Your task to perform on an android device: Is it going to rain this weekend? Image 0: 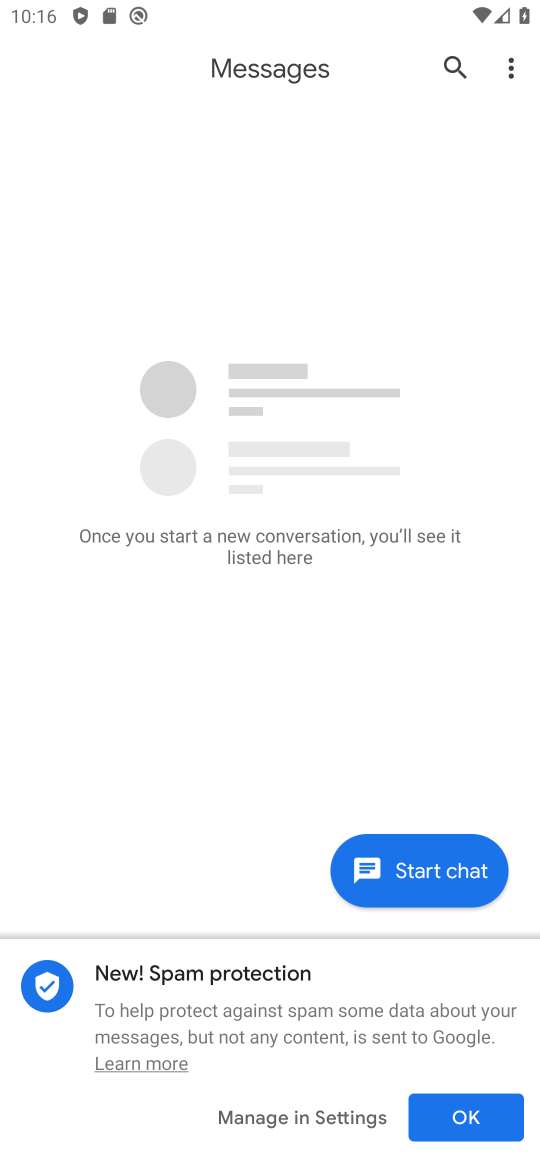
Step 0: press back button
Your task to perform on an android device: Is it going to rain this weekend? Image 1: 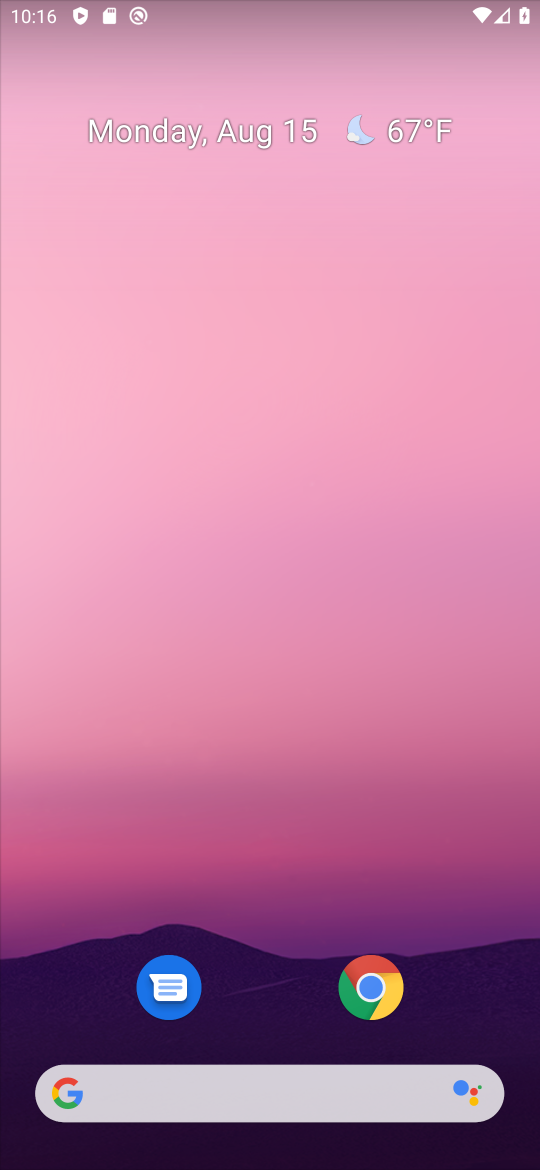
Step 1: drag from (292, 1041) to (225, 177)
Your task to perform on an android device: Is it going to rain this weekend? Image 2: 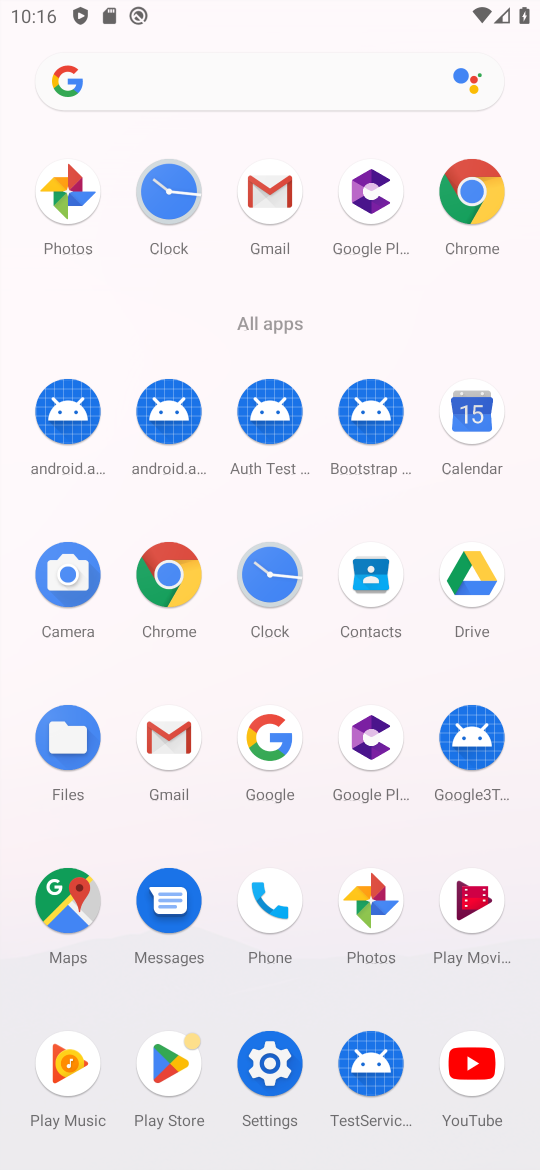
Step 2: click (273, 755)
Your task to perform on an android device: Is it going to rain this weekend? Image 3: 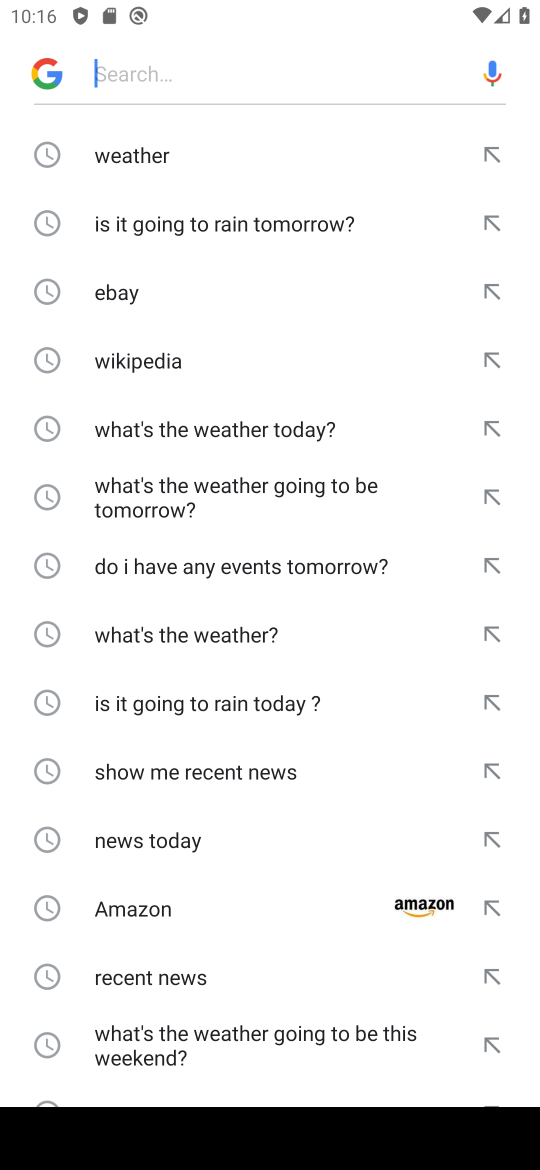
Step 3: click (106, 173)
Your task to perform on an android device: Is it going to rain this weekend? Image 4: 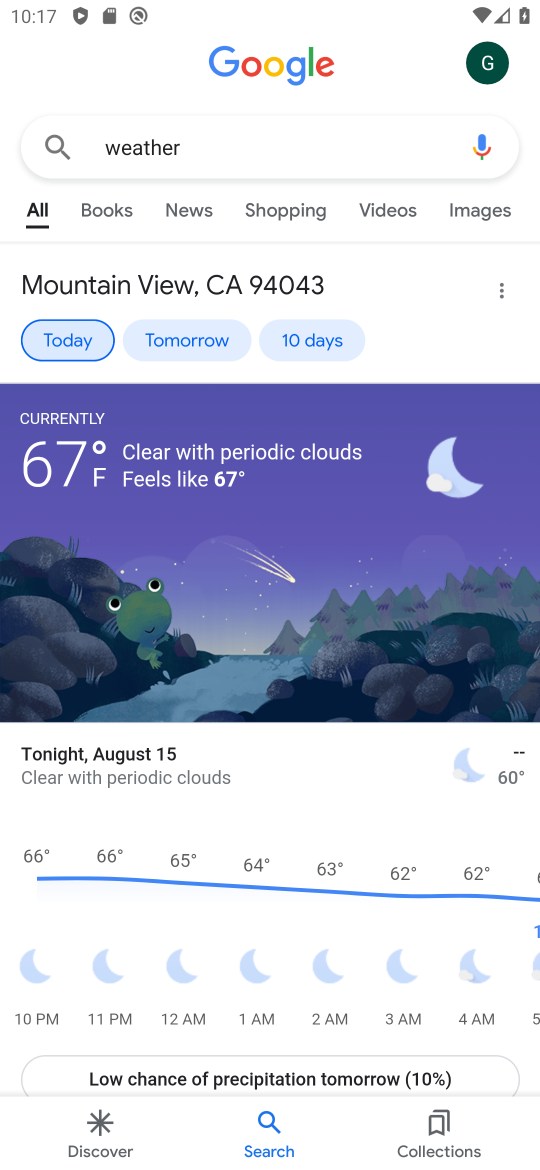
Step 4: click (307, 326)
Your task to perform on an android device: Is it going to rain this weekend? Image 5: 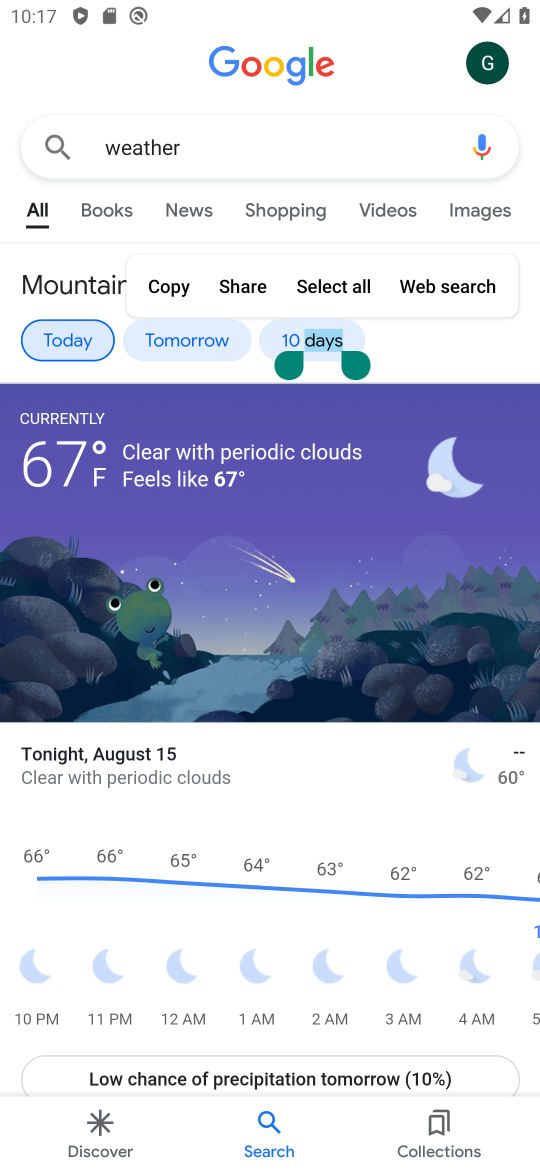
Step 5: click (302, 333)
Your task to perform on an android device: Is it going to rain this weekend? Image 6: 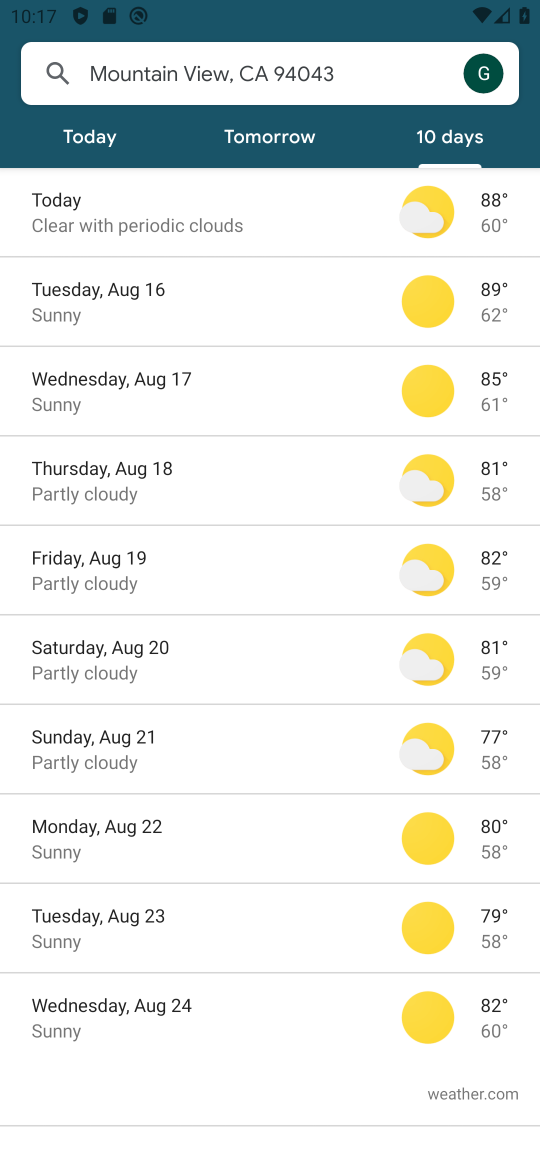
Step 6: task complete